Your task to perform on an android device: Open Wikipedia Image 0: 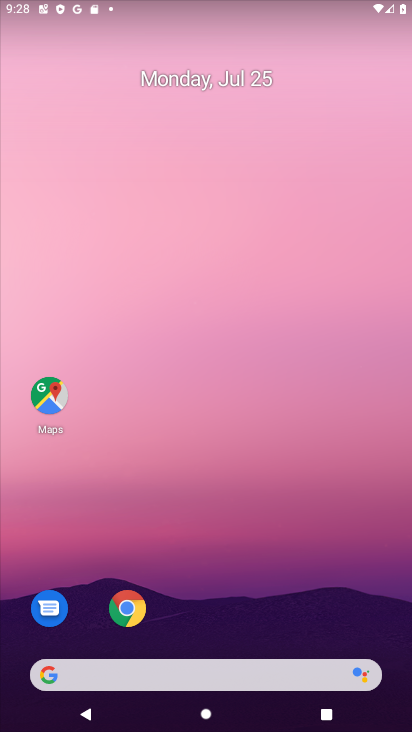
Step 0: click (130, 619)
Your task to perform on an android device: Open Wikipedia Image 1: 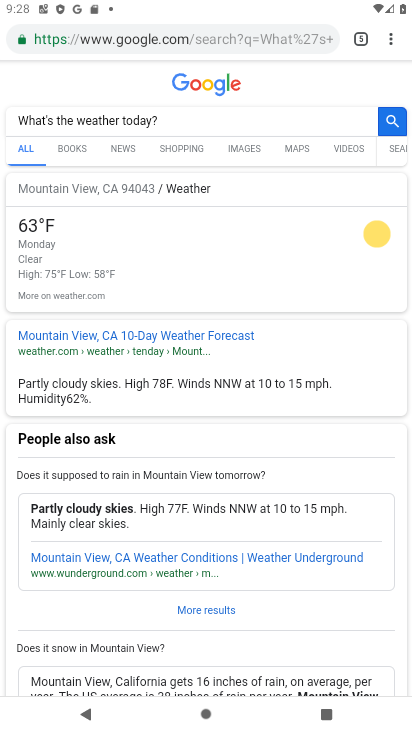
Step 1: click (394, 41)
Your task to perform on an android device: Open Wikipedia Image 2: 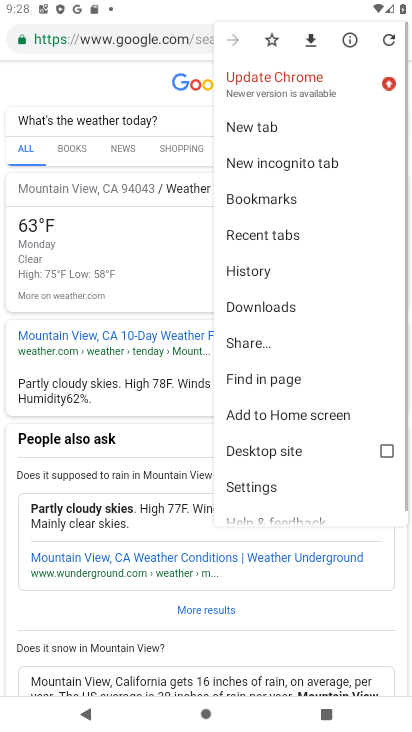
Step 2: click (277, 129)
Your task to perform on an android device: Open Wikipedia Image 3: 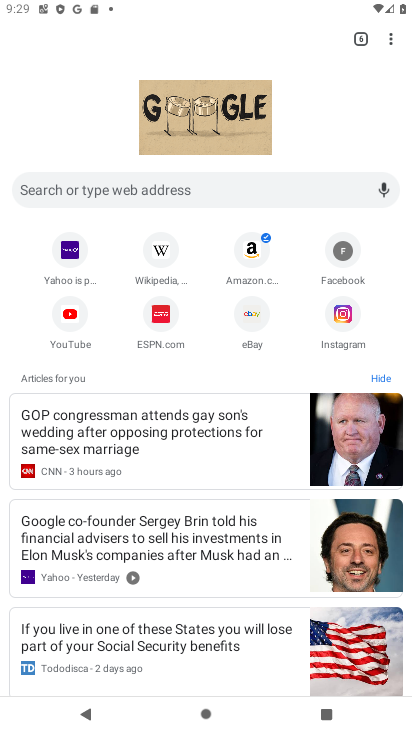
Step 3: click (162, 251)
Your task to perform on an android device: Open Wikipedia Image 4: 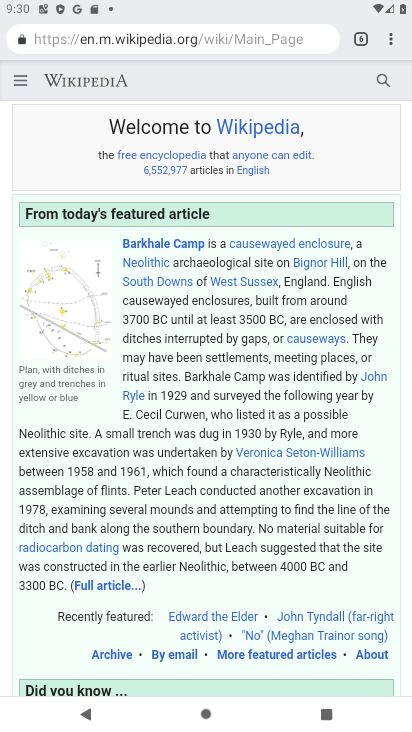
Step 4: task complete